Your task to perform on an android device: Open Google Maps and go to "Timeline" Image 0: 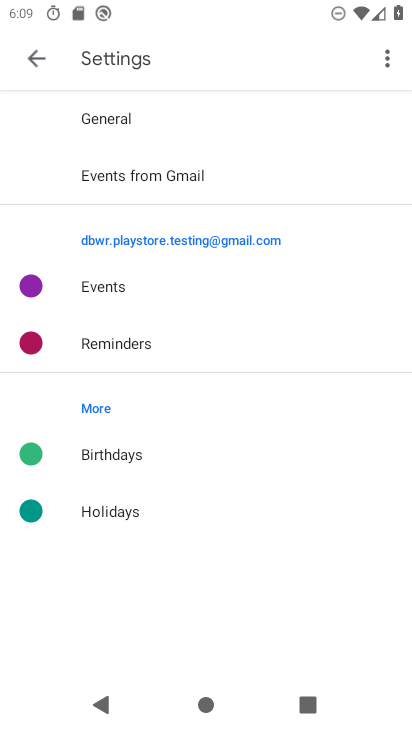
Step 0: press home button
Your task to perform on an android device: Open Google Maps and go to "Timeline" Image 1: 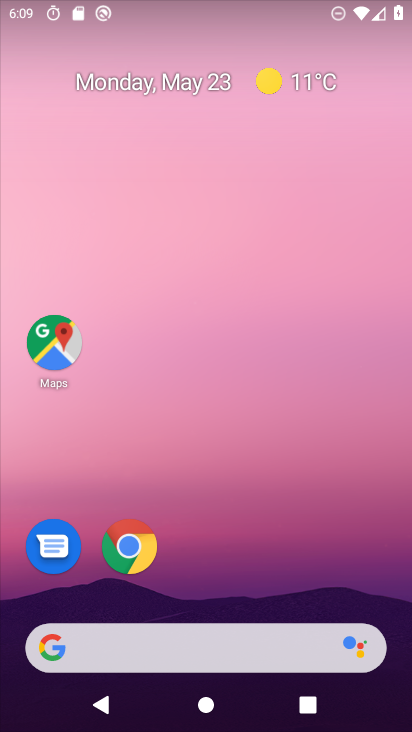
Step 1: click (60, 340)
Your task to perform on an android device: Open Google Maps and go to "Timeline" Image 2: 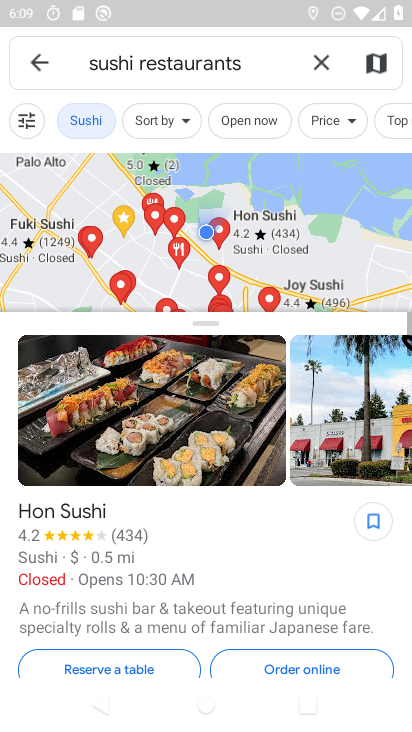
Step 2: click (43, 61)
Your task to perform on an android device: Open Google Maps and go to "Timeline" Image 3: 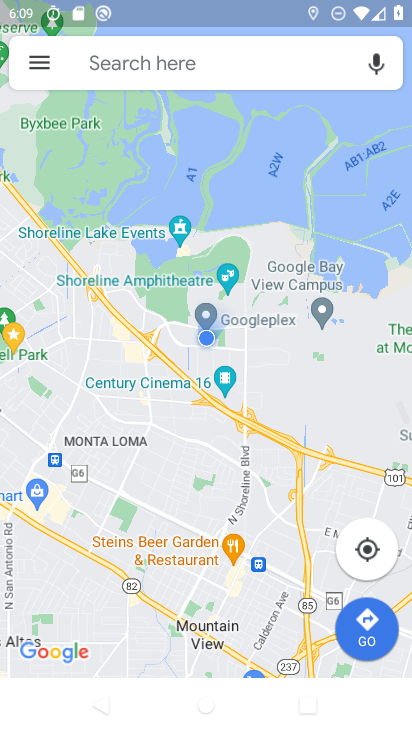
Step 3: click (40, 60)
Your task to perform on an android device: Open Google Maps and go to "Timeline" Image 4: 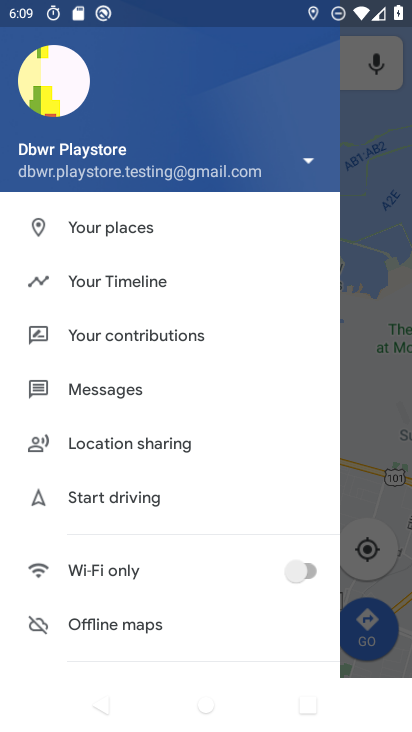
Step 4: click (139, 283)
Your task to perform on an android device: Open Google Maps and go to "Timeline" Image 5: 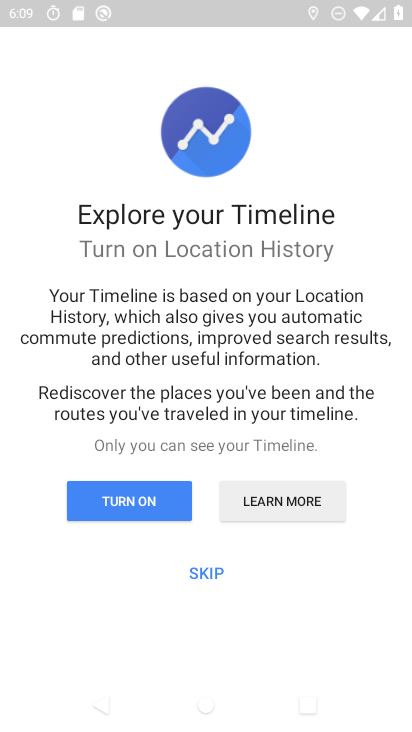
Step 5: click (212, 567)
Your task to perform on an android device: Open Google Maps and go to "Timeline" Image 6: 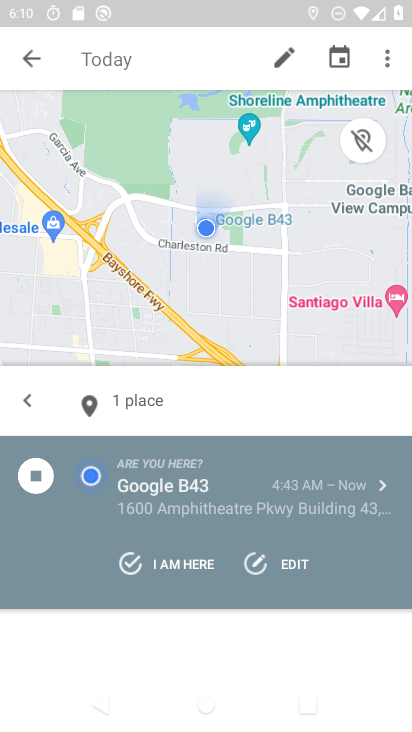
Step 6: task complete